Your task to perform on an android device: toggle data saver in the chrome app Image 0: 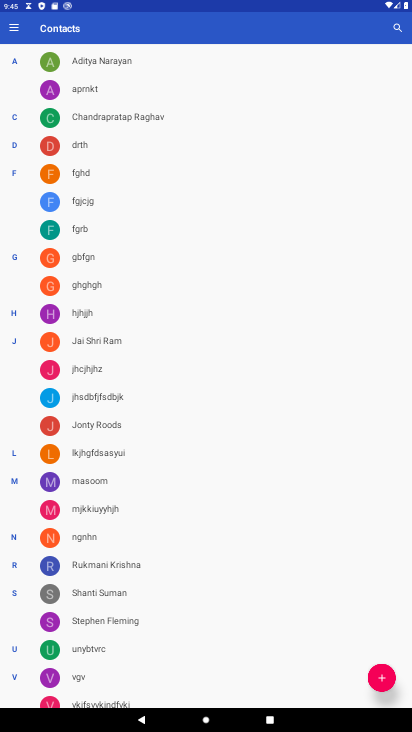
Step 0: press home button
Your task to perform on an android device: toggle data saver in the chrome app Image 1: 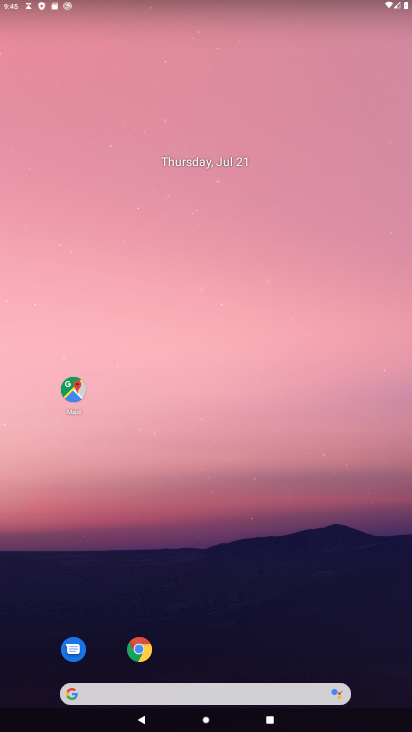
Step 1: click (130, 655)
Your task to perform on an android device: toggle data saver in the chrome app Image 2: 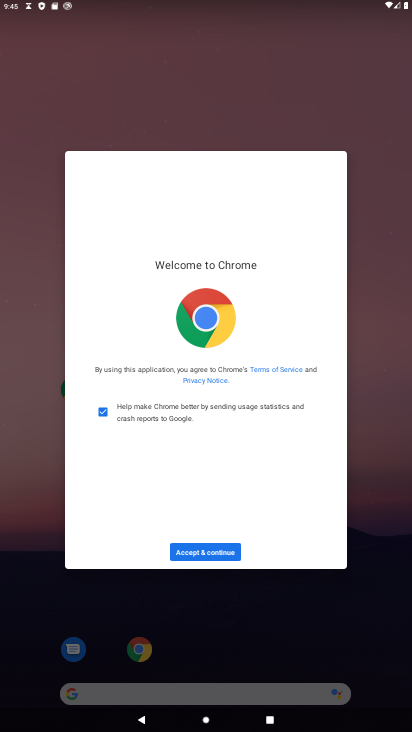
Step 2: click (213, 547)
Your task to perform on an android device: toggle data saver in the chrome app Image 3: 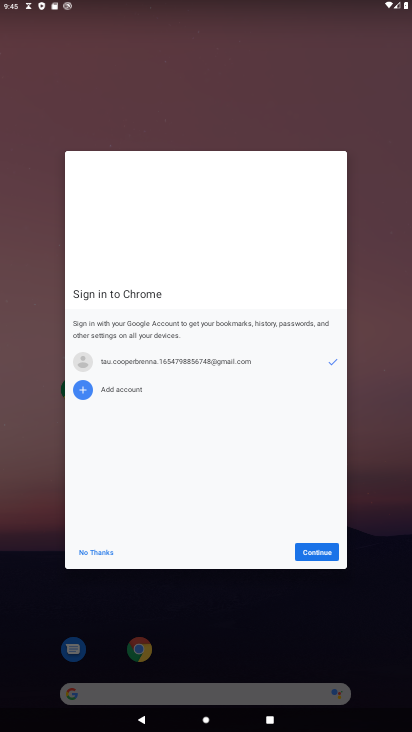
Step 3: click (300, 550)
Your task to perform on an android device: toggle data saver in the chrome app Image 4: 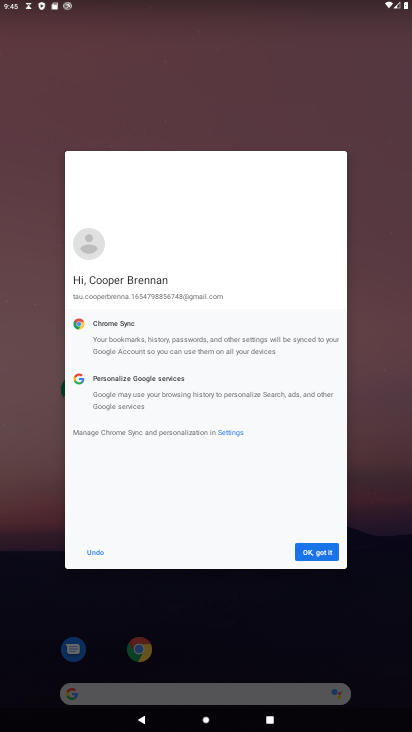
Step 4: click (300, 550)
Your task to perform on an android device: toggle data saver in the chrome app Image 5: 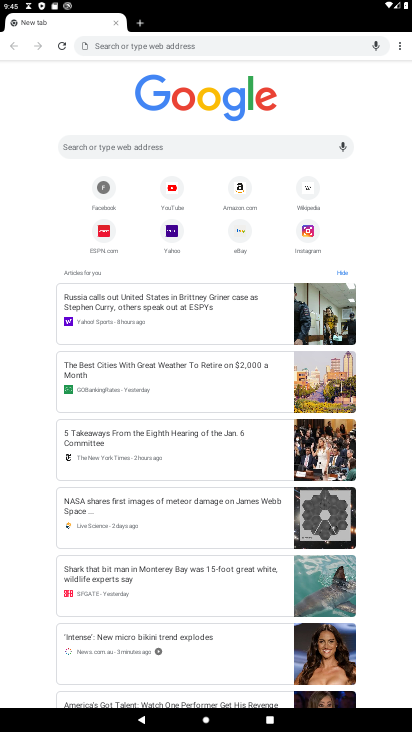
Step 5: click (401, 38)
Your task to perform on an android device: toggle data saver in the chrome app Image 6: 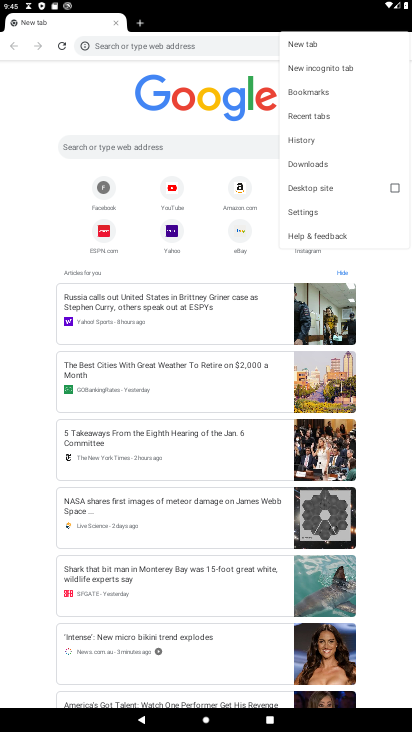
Step 6: click (318, 212)
Your task to perform on an android device: toggle data saver in the chrome app Image 7: 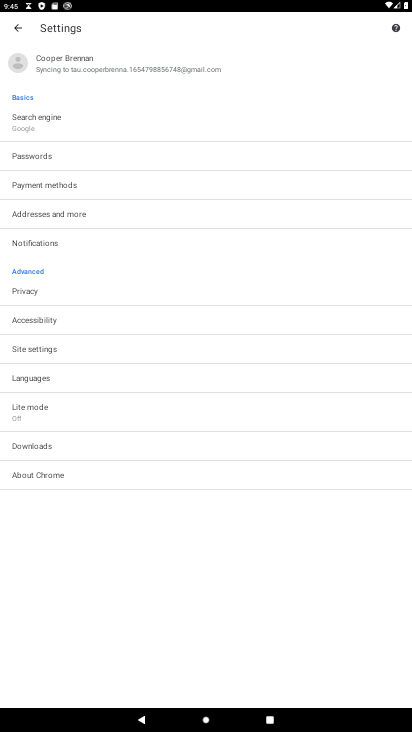
Step 7: click (115, 403)
Your task to perform on an android device: toggle data saver in the chrome app Image 8: 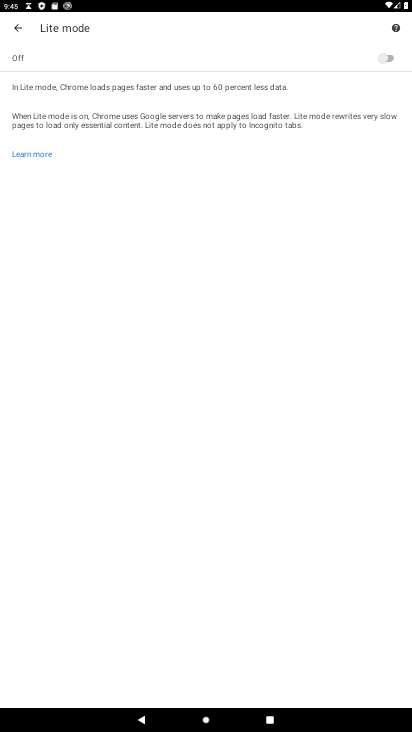
Step 8: click (386, 62)
Your task to perform on an android device: toggle data saver in the chrome app Image 9: 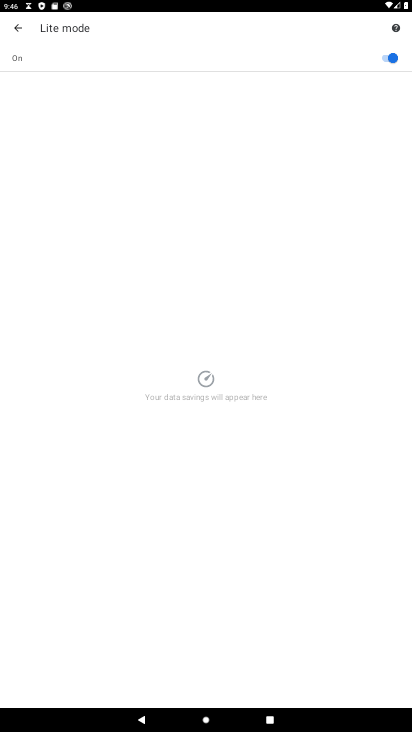
Step 9: task complete